Your task to perform on an android device: open a bookmark in the chrome app Image 0: 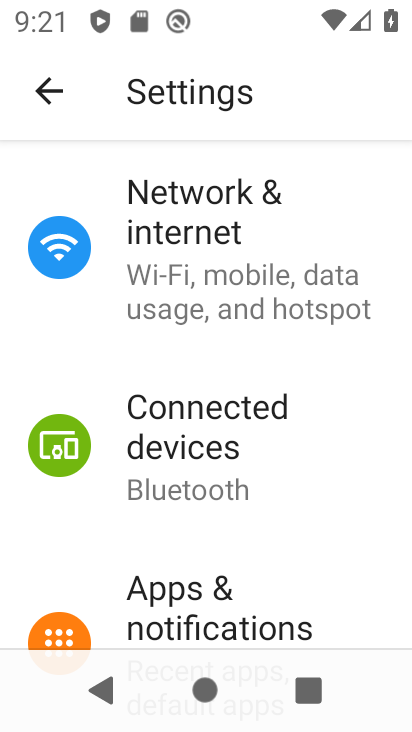
Step 0: press back button
Your task to perform on an android device: open a bookmark in the chrome app Image 1: 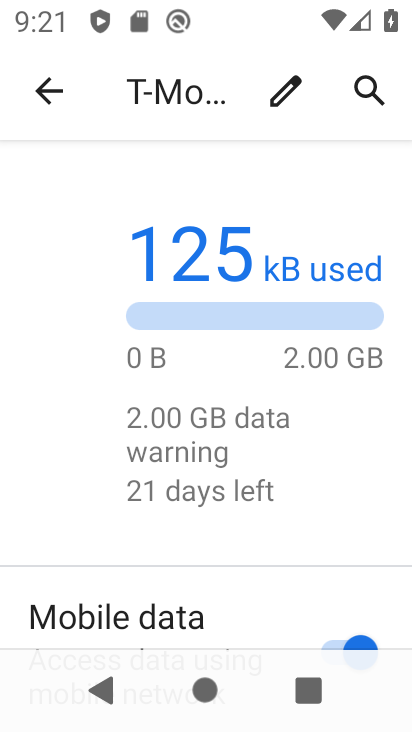
Step 1: press back button
Your task to perform on an android device: open a bookmark in the chrome app Image 2: 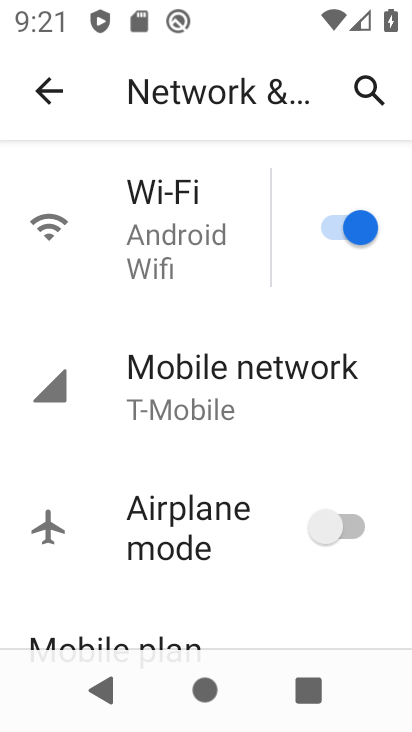
Step 2: press back button
Your task to perform on an android device: open a bookmark in the chrome app Image 3: 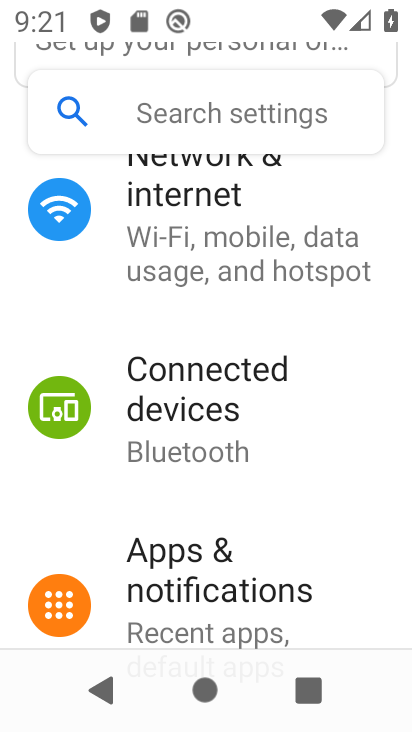
Step 3: press back button
Your task to perform on an android device: open a bookmark in the chrome app Image 4: 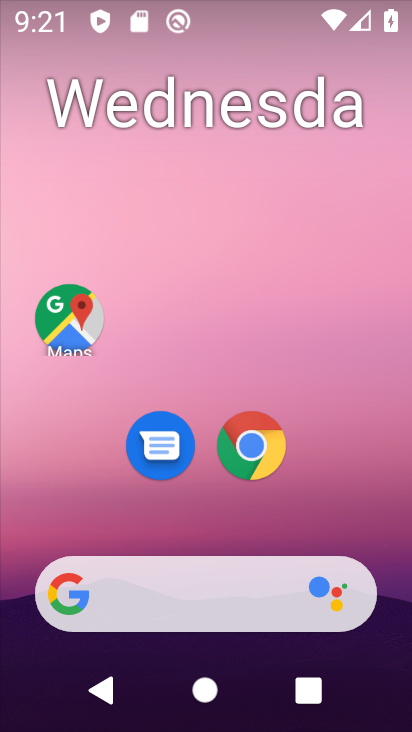
Step 4: click (244, 436)
Your task to perform on an android device: open a bookmark in the chrome app Image 5: 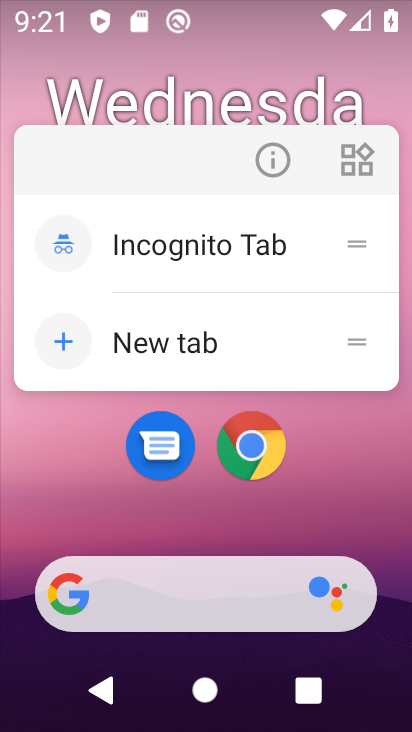
Step 5: click (262, 438)
Your task to perform on an android device: open a bookmark in the chrome app Image 6: 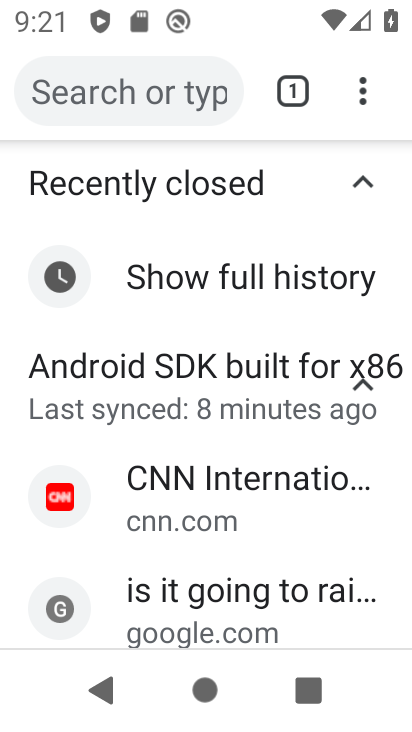
Step 6: drag from (358, 79) to (145, 354)
Your task to perform on an android device: open a bookmark in the chrome app Image 7: 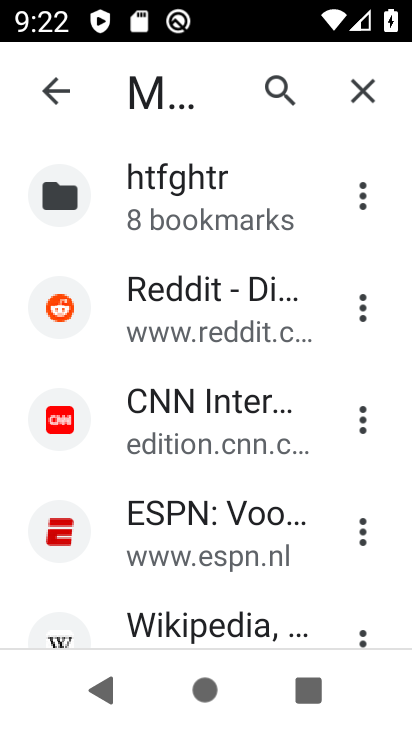
Step 7: click (202, 312)
Your task to perform on an android device: open a bookmark in the chrome app Image 8: 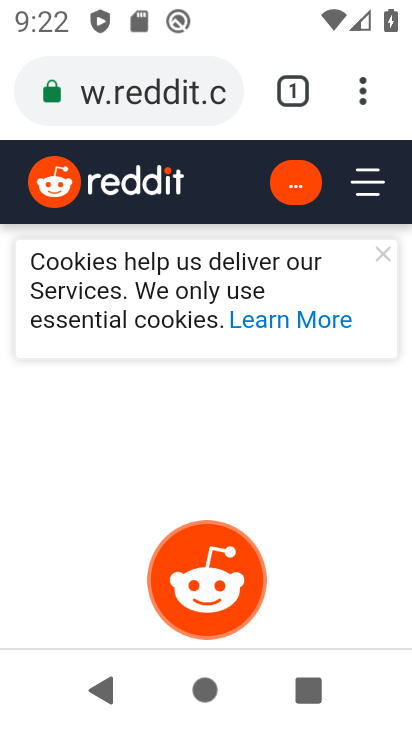
Step 8: task complete